Your task to perform on an android device: Open accessibility settings Image 0: 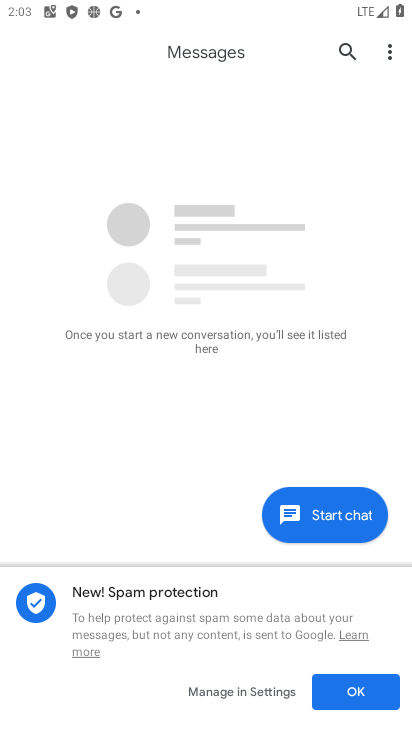
Step 0: press home button
Your task to perform on an android device: Open accessibility settings Image 1: 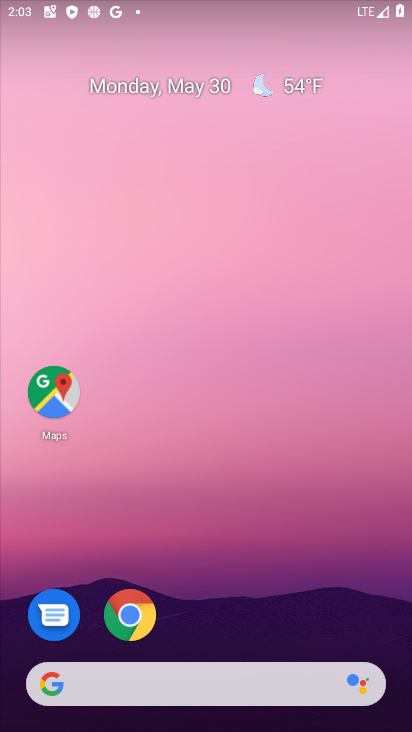
Step 1: drag from (303, 619) to (245, 186)
Your task to perform on an android device: Open accessibility settings Image 2: 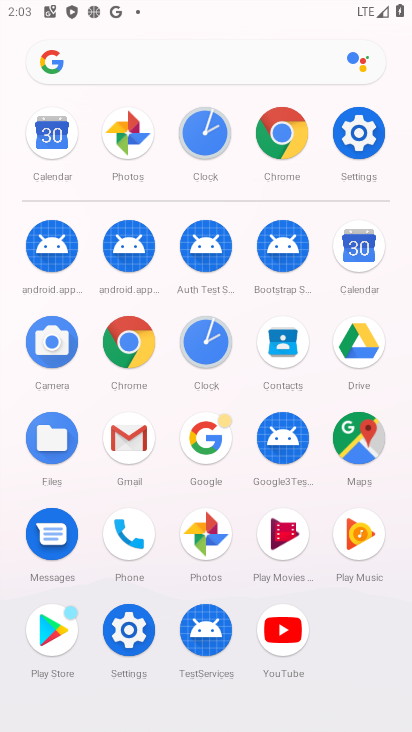
Step 2: click (358, 143)
Your task to perform on an android device: Open accessibility settings Image 3: 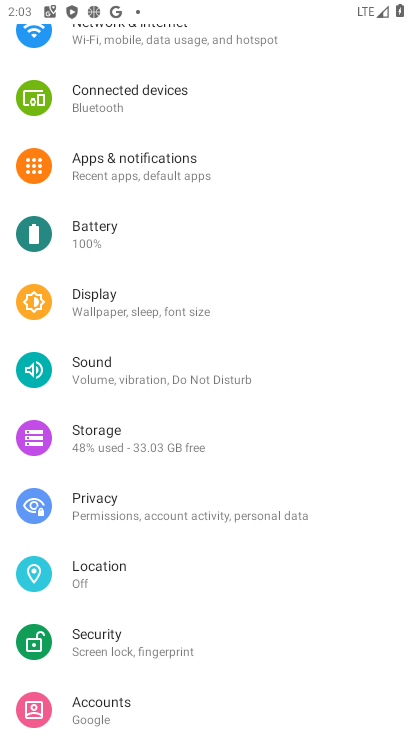
Step 3: drag from (196, 610) to (176, 374)
Your task to perform on an android device: Open accessibility settings Image 4: 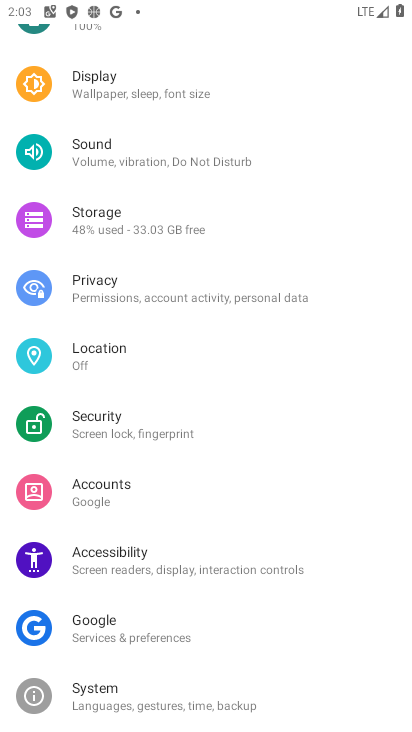
Step 4: click (165, 552)
Your task to perform on an android device: Open accessibility settings Image 5: 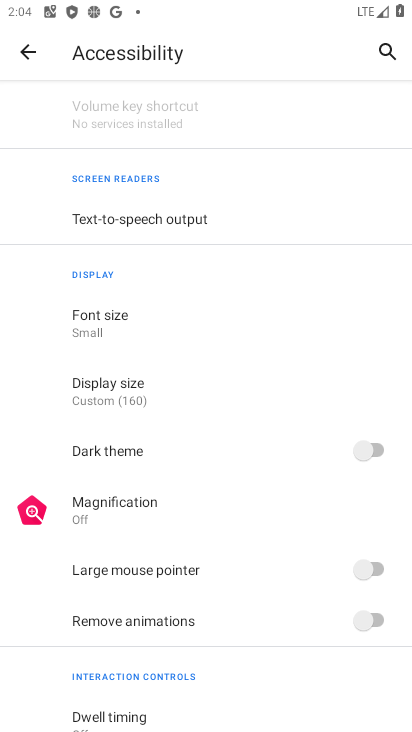
Step 5: task complete